Your task to perform on an android device: see sites visited before in the chrome app Image 0: 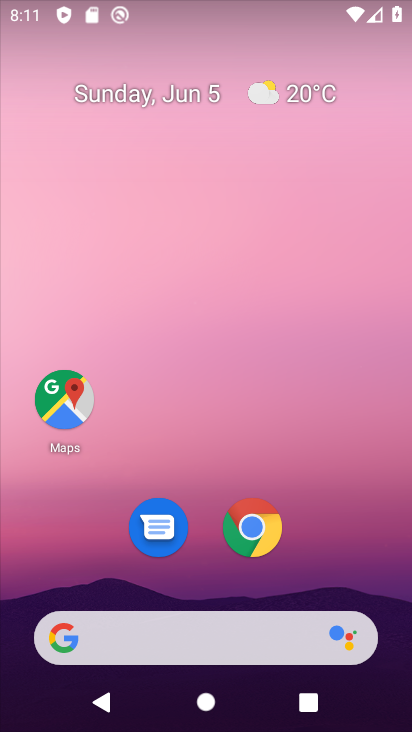
Step 0: drag from (359, 550) to (16, 116)
Your task to perform on an android device: see sites visited before in the chrome app Image 1: 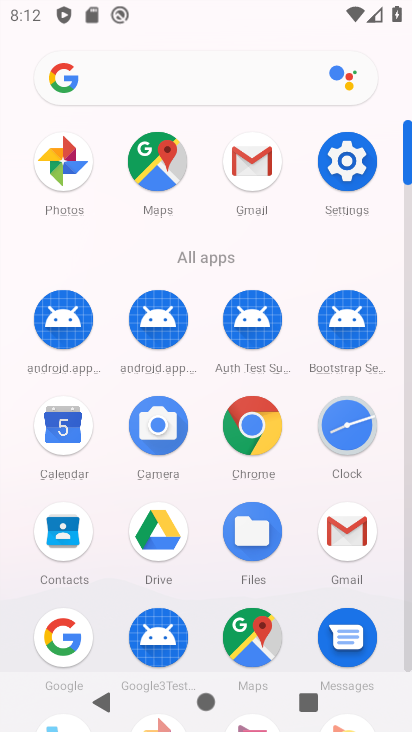
Step 1: click (263, 423)
Your task to perform on an android device: see sites visited before in the chrome app Image 2: 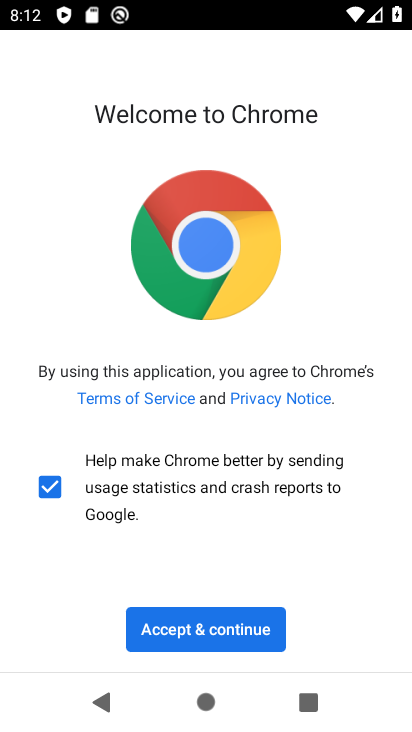
Step 2: click (234, 624)
Your task to perform on an android device: see sites visited before in the chrome app Image 3: 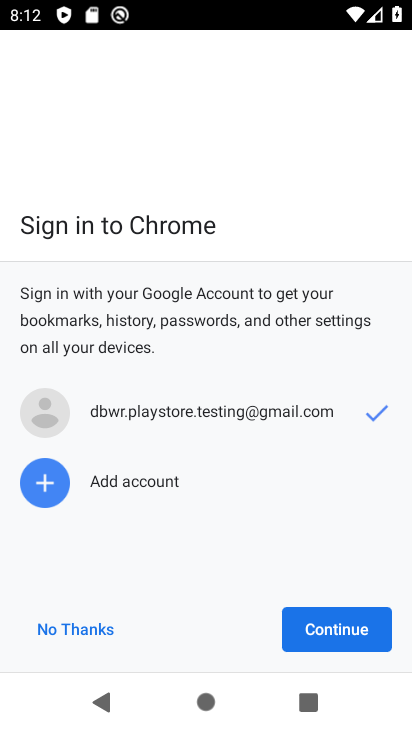
Step 3: click (115, 643)
Your task to perform on an android device: see sites visited before in the chrome app Image 4: 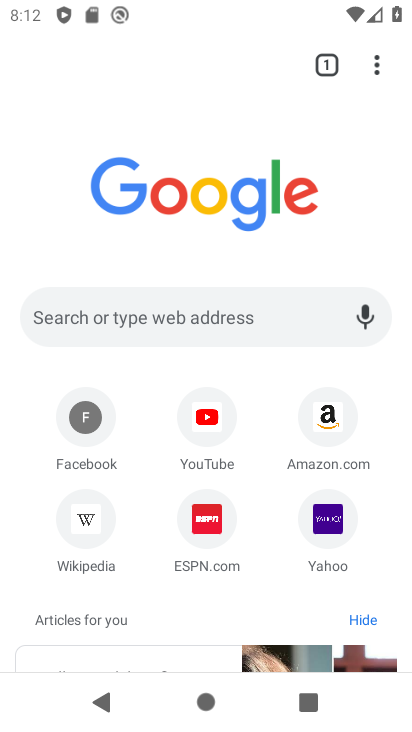
Step 4: drag from (382, 65) to (143, 303)
Your task to perform on an android device: see sites visited before in the chrome app Image 5: 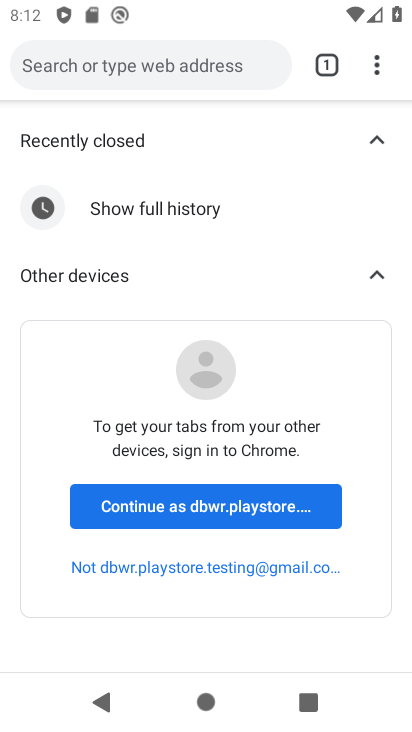
Step 5: click (207, 499)
Your task to perform on an android device: see sites visited before in the chrome app Image 6: 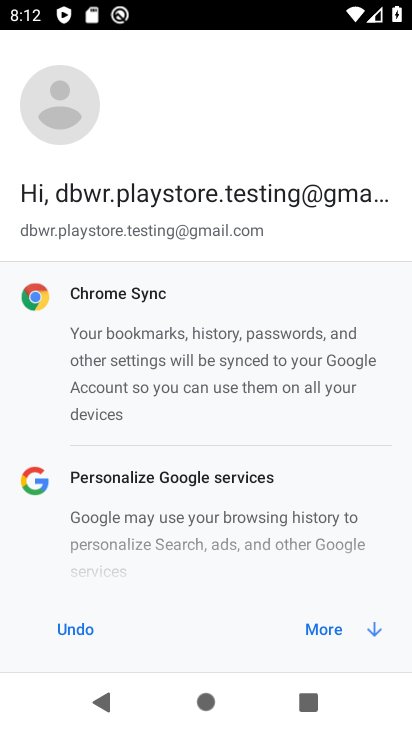
Step 6: click (333, 634)
Your task to perform on an android device: see sites visited before in the chrome app Image 7: 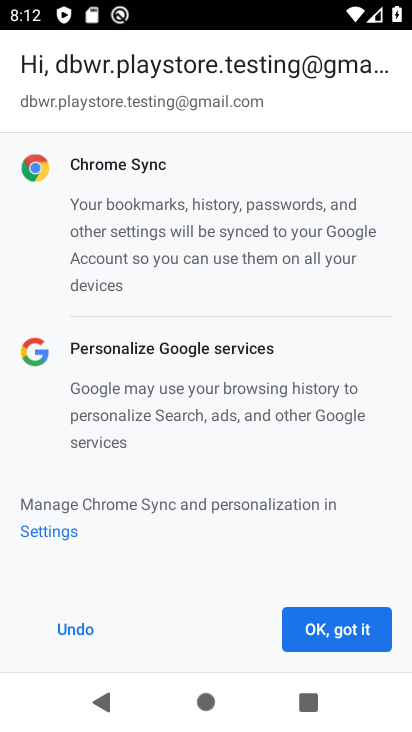
Step 7: click (303, 618)
Your task to perform on an android device: see sites visited before in the chrome app Image 8: 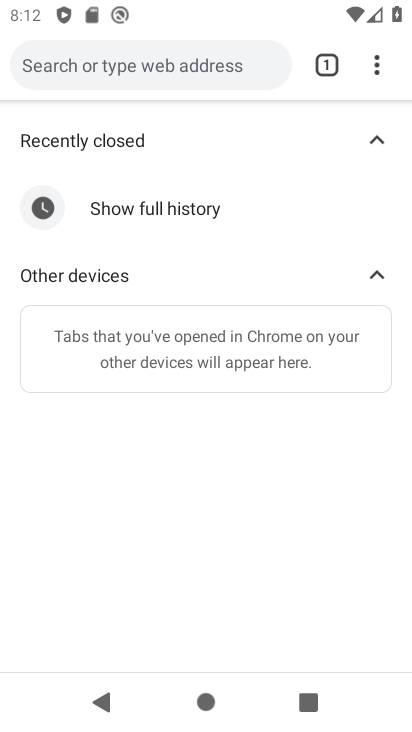
Step 8: task complete